Your task to perform on an android device: turn on javascript in the chrome app Image 0: 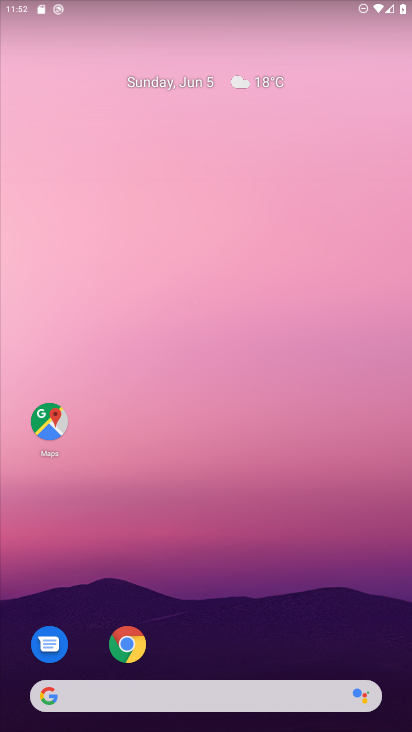
Step 0: drag from (179, 725) to (164, 254)
Your task to perform on an android device: turn on javascript in the chrome app Image 1: 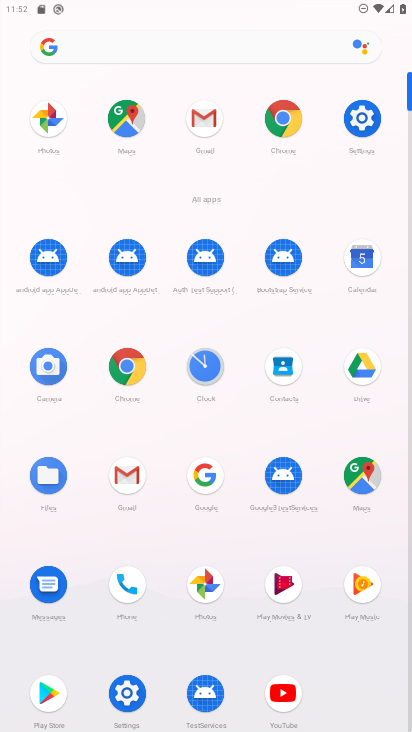
Step 1: click (125, 384)
Your task to perform on an android device: turn on javascript in the chrome app Image 2: 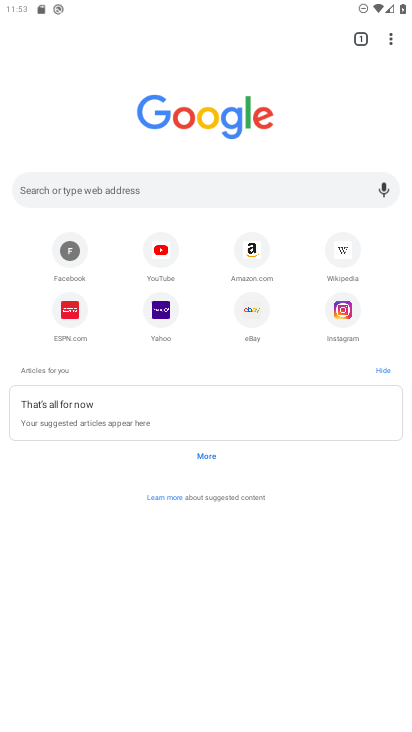
Step 2: click (381, 49)
Your task to perform on an android device: turn on javascript in the chrome app Image 3: 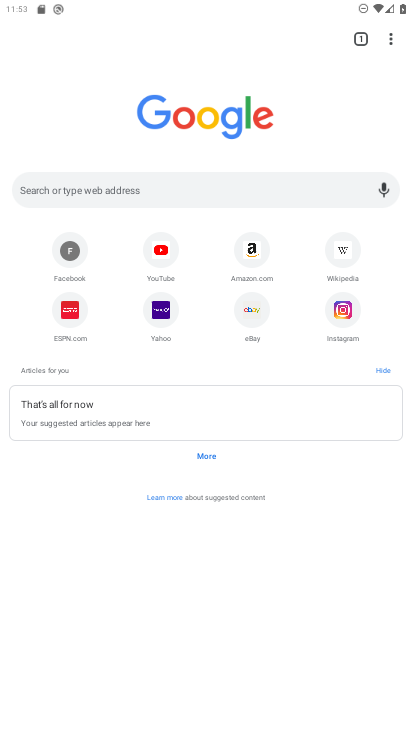
Step 3: click (381, 50)
Your task to perform on an android device: turn on javascript in the chrome app Image 4: 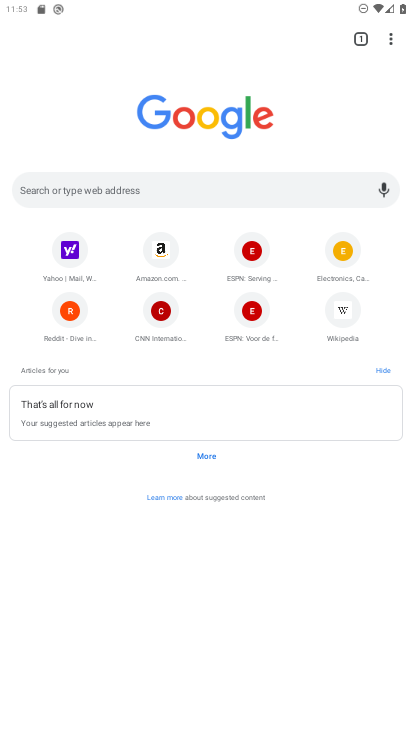
Step 4: click (387, 56)
Your task to perform on an android device: turn on javascript in the chrome app Image 5: 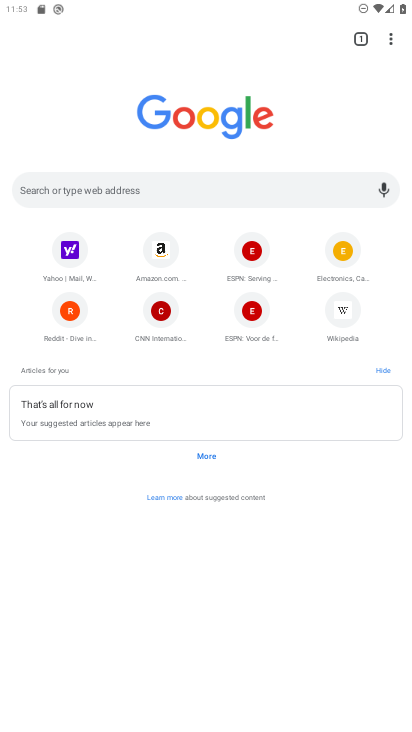
Step 5: click (385, 44)
Your task to perform on an android device: turn on javascript in the chrome app Image 6: 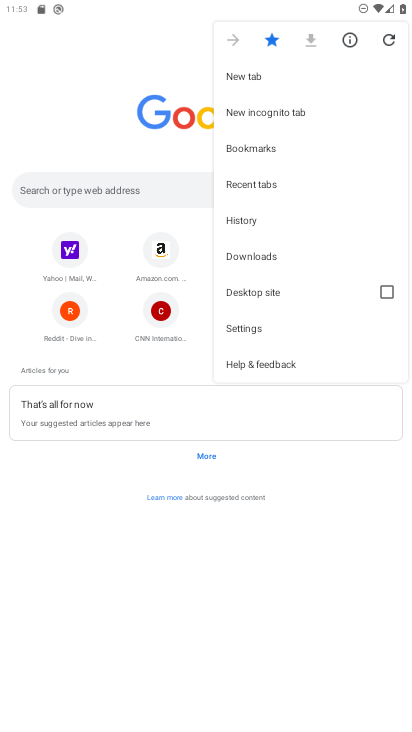
Step 6: click (253, 325)
Your task to perform on an android device: turn on javascript in the chrome app Image 7: 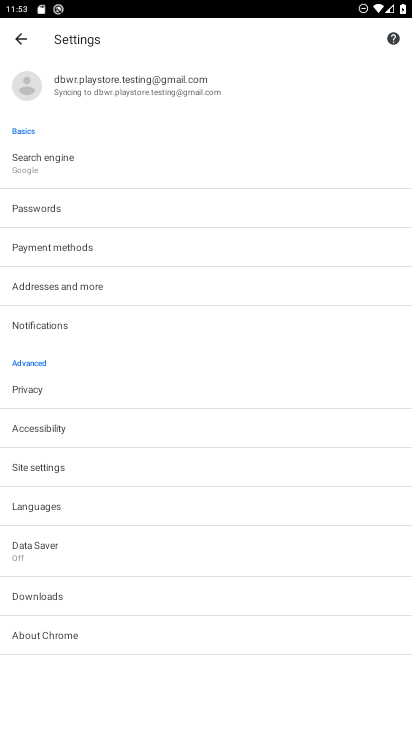
Step 7: click (65, 468)
Your task to perform on an android device: turn on javascript in the chrome app Image 8: 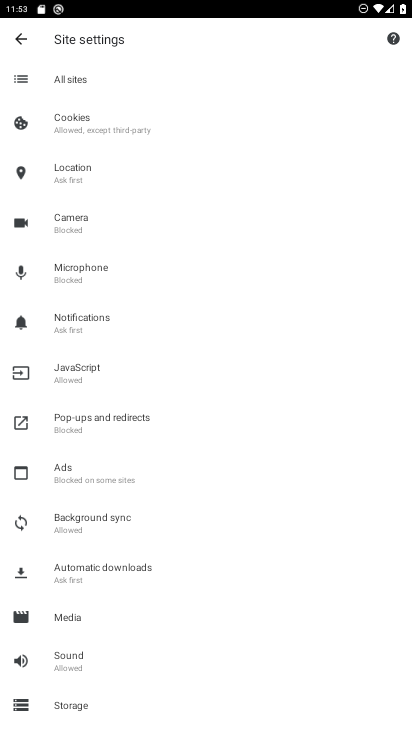
Step 8: click (90, 381)
Your task to perform on an android device: turn on javascript in the chrome app Image 9: 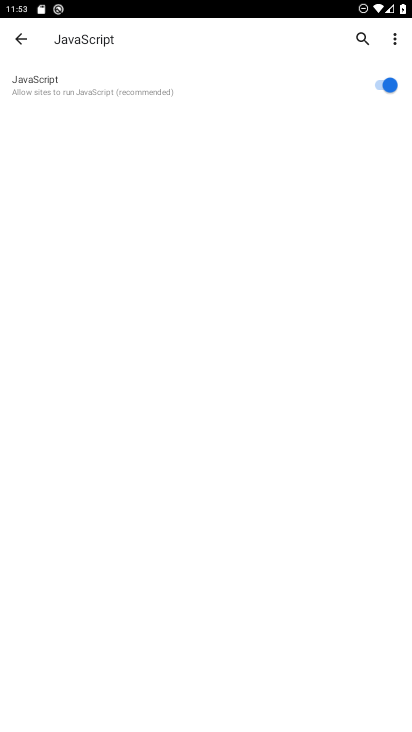
Step 9: click (369, 80)
Your task to perform on an android device: turn on javascript in the chrome app Image 10: 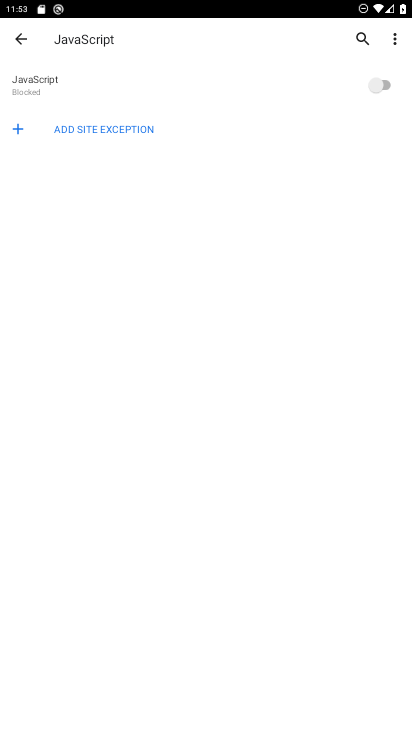
Step 10: click (366, 84)
Your task to perform on an android device: turn on javascript in the chrome app Image 11: 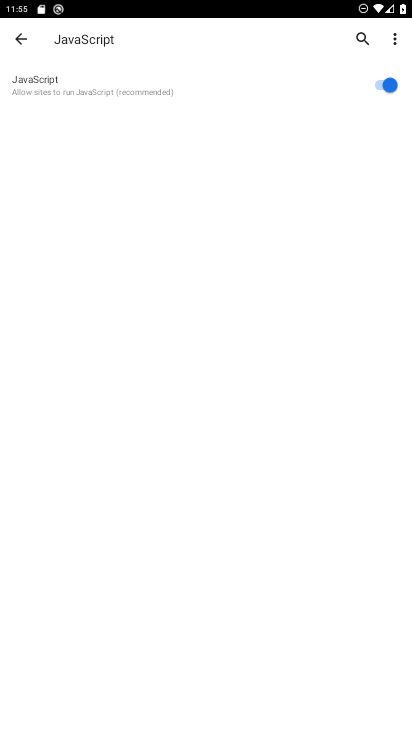
Step 11: task complete